Your task to perform on an android device: change text size in settings app Image 0: 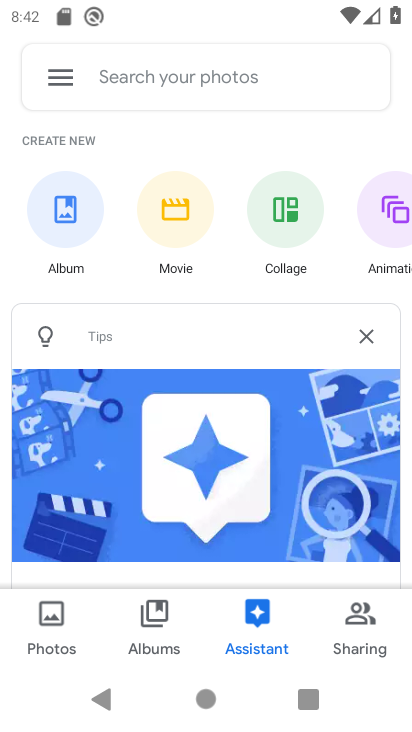
Step 0: press home button
Your task to perform on an android device: change text size in settings app Image 1: 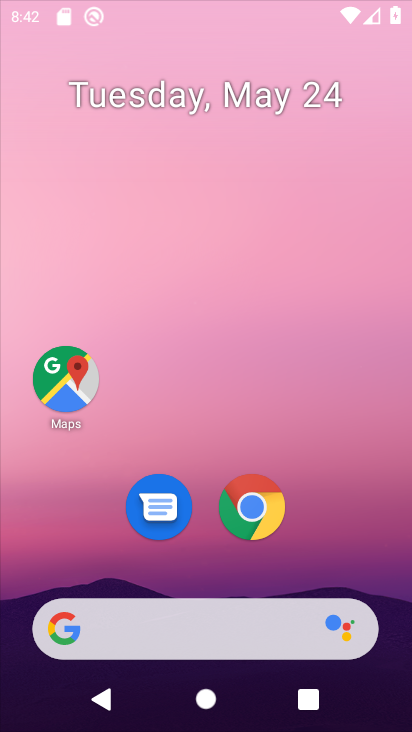
Step 1: drag from (229, 578) to (315, 64)
Your task to perform on an android device: change text size in settings app Image 2: 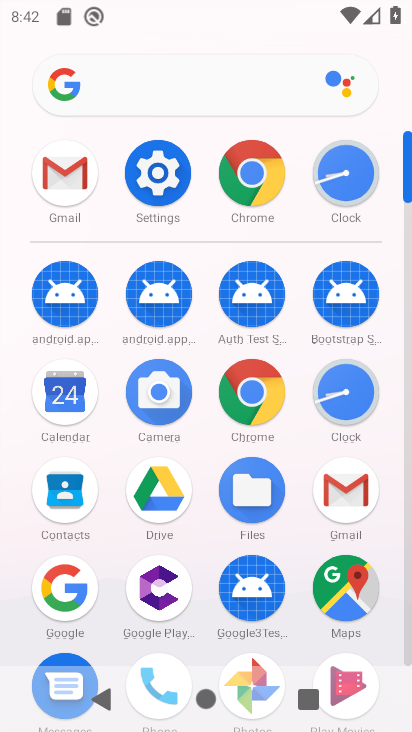
Step 2: click (143, 173)
Your task to perform on an android device: change text size in settings app Image 3: 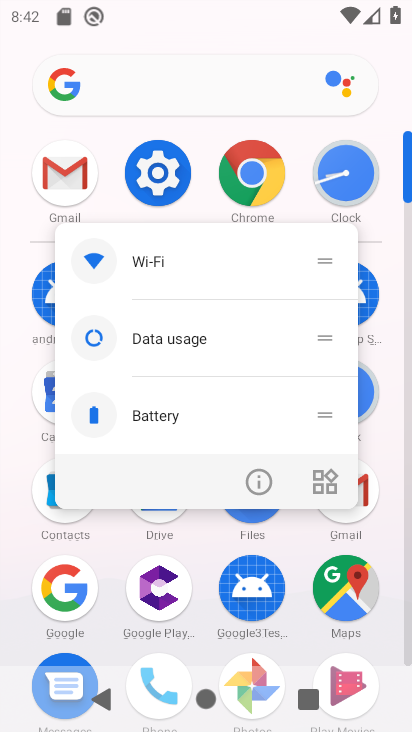
Step 3: click (254, 478)
Your task to perform on an android device: change text size in settings app Image 4: 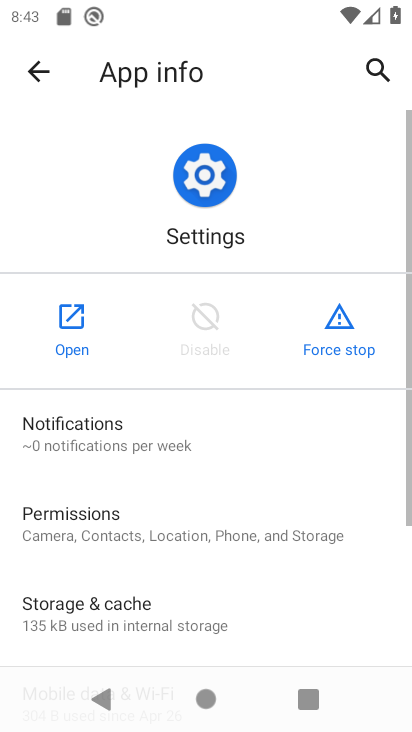
Step 4: click (76, 332)
Your task to perform on an android device: change text size in settings app Image 5: 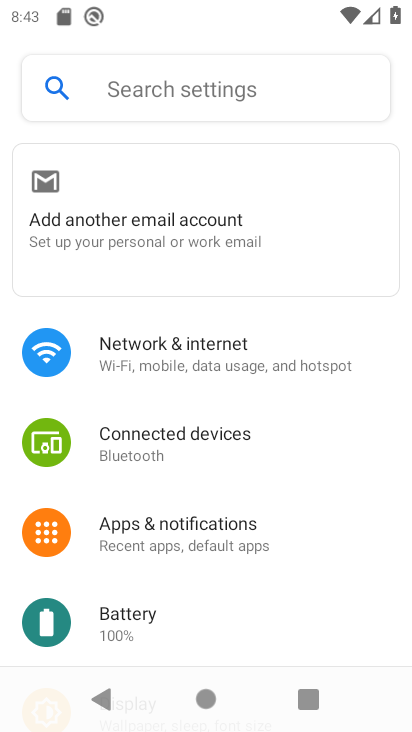
Step 5: drag from (188, 615) to (266, 129)
Your task to perform on an android device: change text size in settings app Image 6: 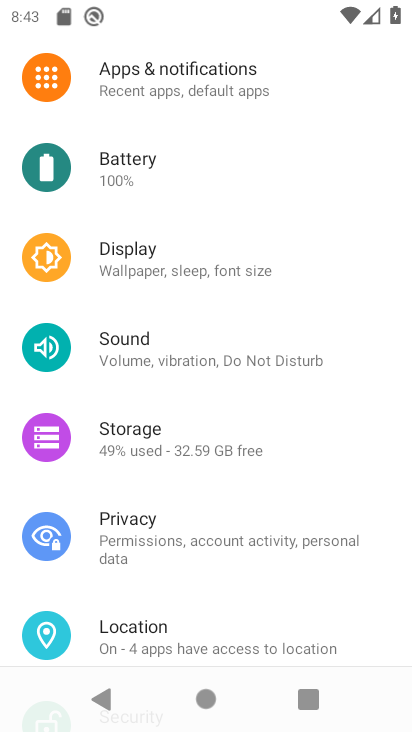
Step 6: click (190, 263)
Your task to perform on an android device: change text size in settings app Image 7: 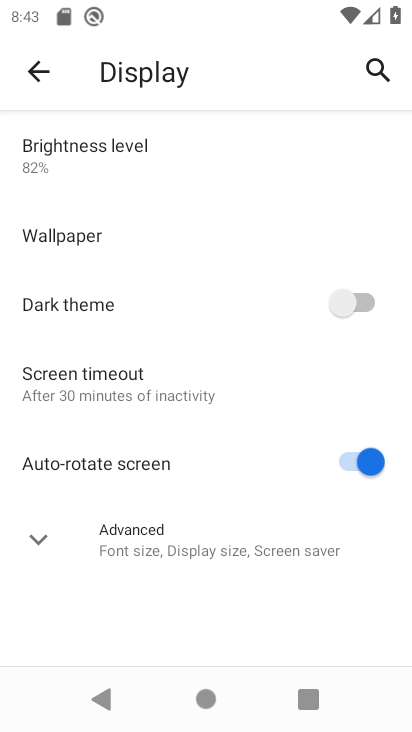
Step 7: click (171, 539)
Your task to perform on an android device: change text size in settings app Image 8: 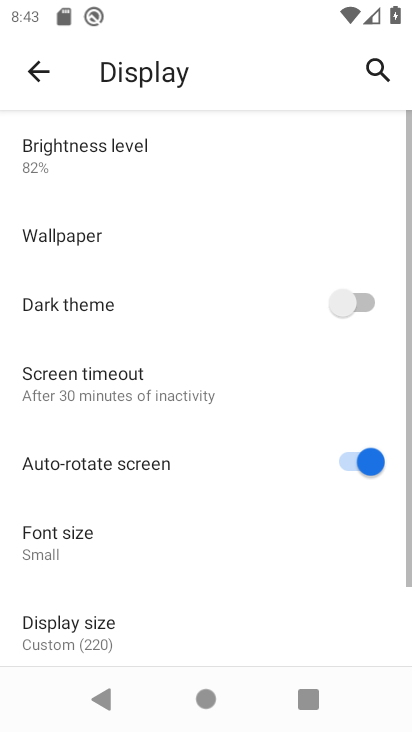
Step 8: drag from (166, 535) to (208, 153)
Your task to perform on an android device: change text size in settings app Image 9: 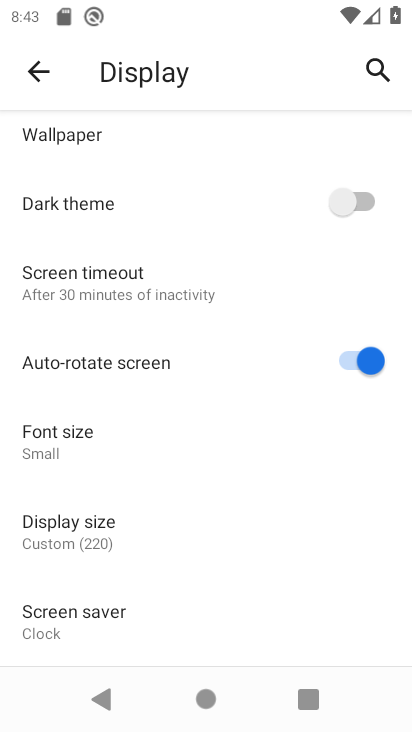
Step 9: click (103, 438)
Your task to perform on an android device: change text size in settings app Image 10: 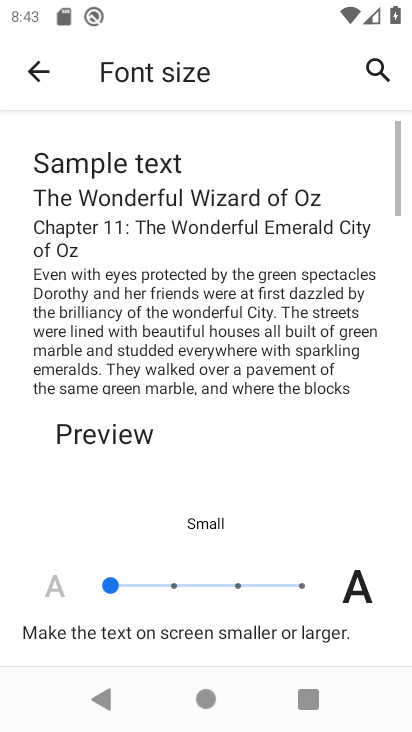
Step 10: drag from (227, 493) to (282, 217)
Your task to perform on an android device: change text size in settings app Image 11: 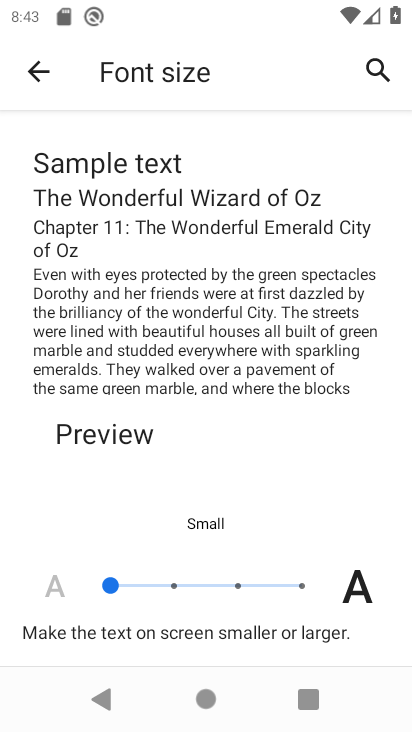
Step 11: drag from (181, 562) to (298, 166)
Your task to perform on an android device: change text size in settings app Image 12: 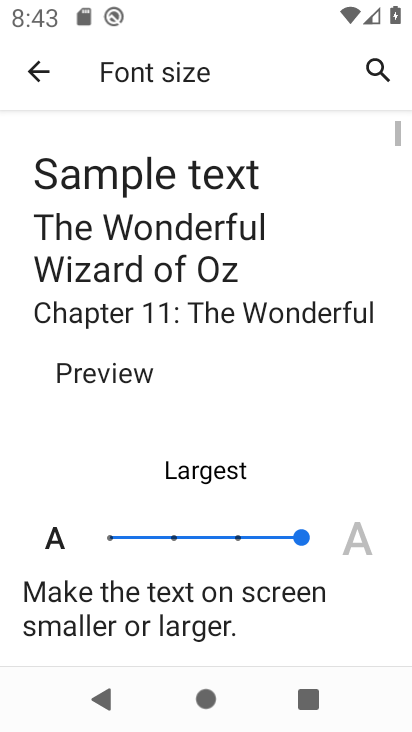
Step 12: click (165, 588)
Your task to perform on an android device: change text size in settings app Image 13: 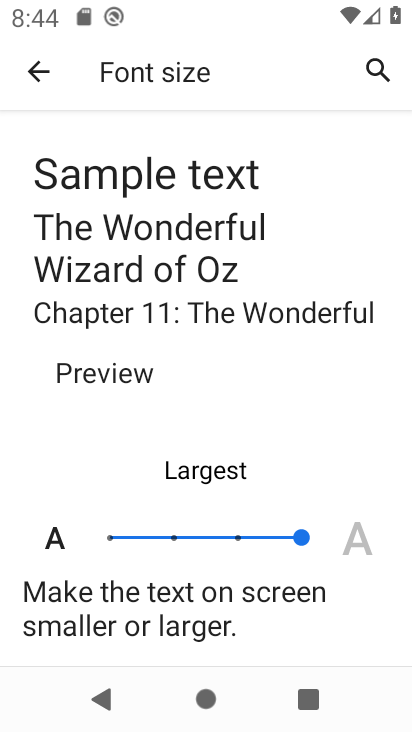
Step 13: drag from (142, 618) to (245, 140)
Your task to perform on an android device: change text size in settings app Image 14: 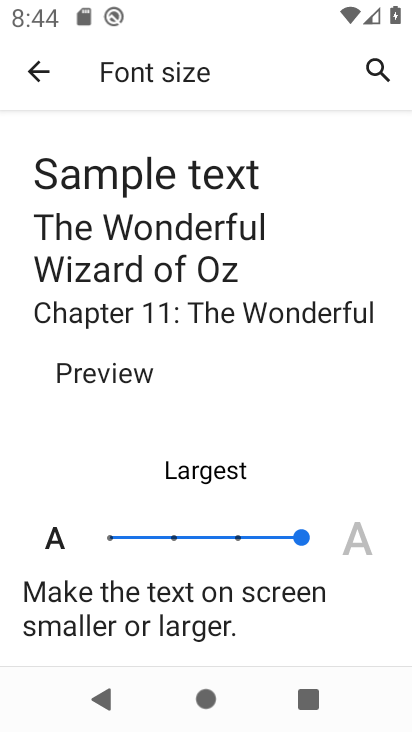
Step 14: click (108, 534)
Your task to perform on an android device: change text size in settings app Image 15: 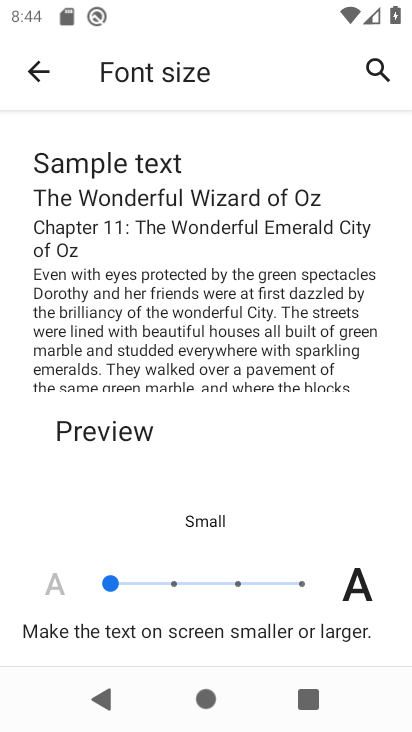
Step 15: drag from (215, 594) to (359, 153)
Your task to perform on an android device: change text size in settings app Image 16: 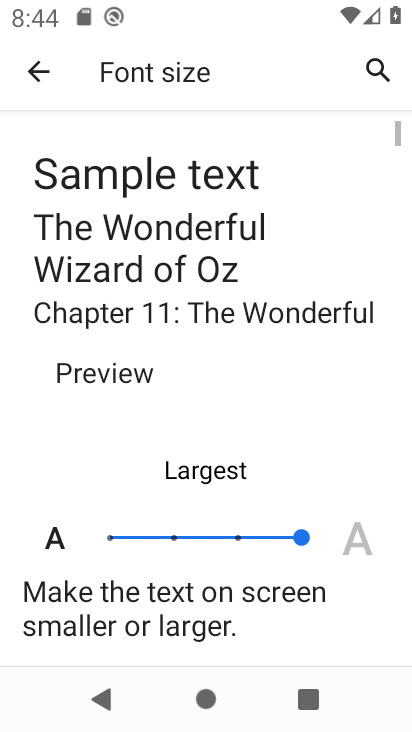
Step 16: drag from (197, 478) to (219, 284)
Your task to perform on an android device: change text size in settings app Image 17: 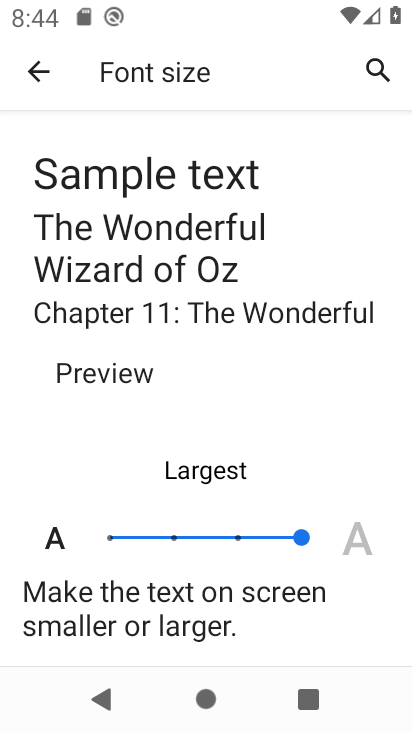
Step 17: drag from (236, 607) to (407, 96)
Your task to perform on an android device: change text size in settings app Image 18: 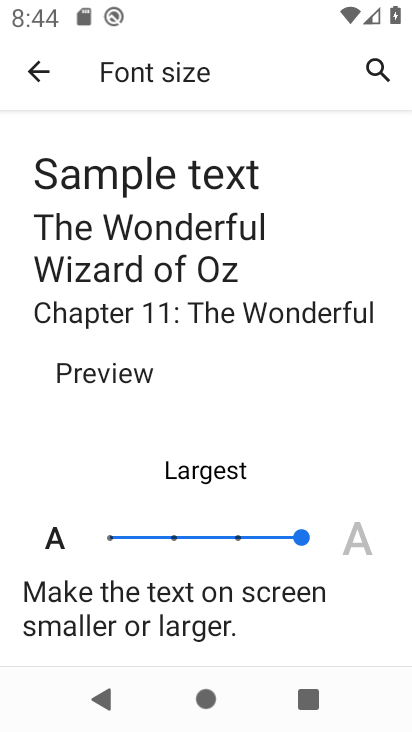
Step 18: click (114, 532)
Your task to perform on an android device: change text size in settings app Image 19: 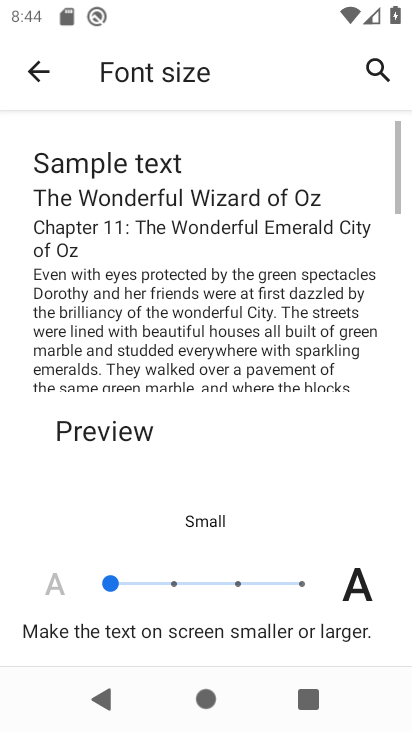
Step 19: task complete